Your task to perform on an android device: uninstall "Google Photos" Image 0: 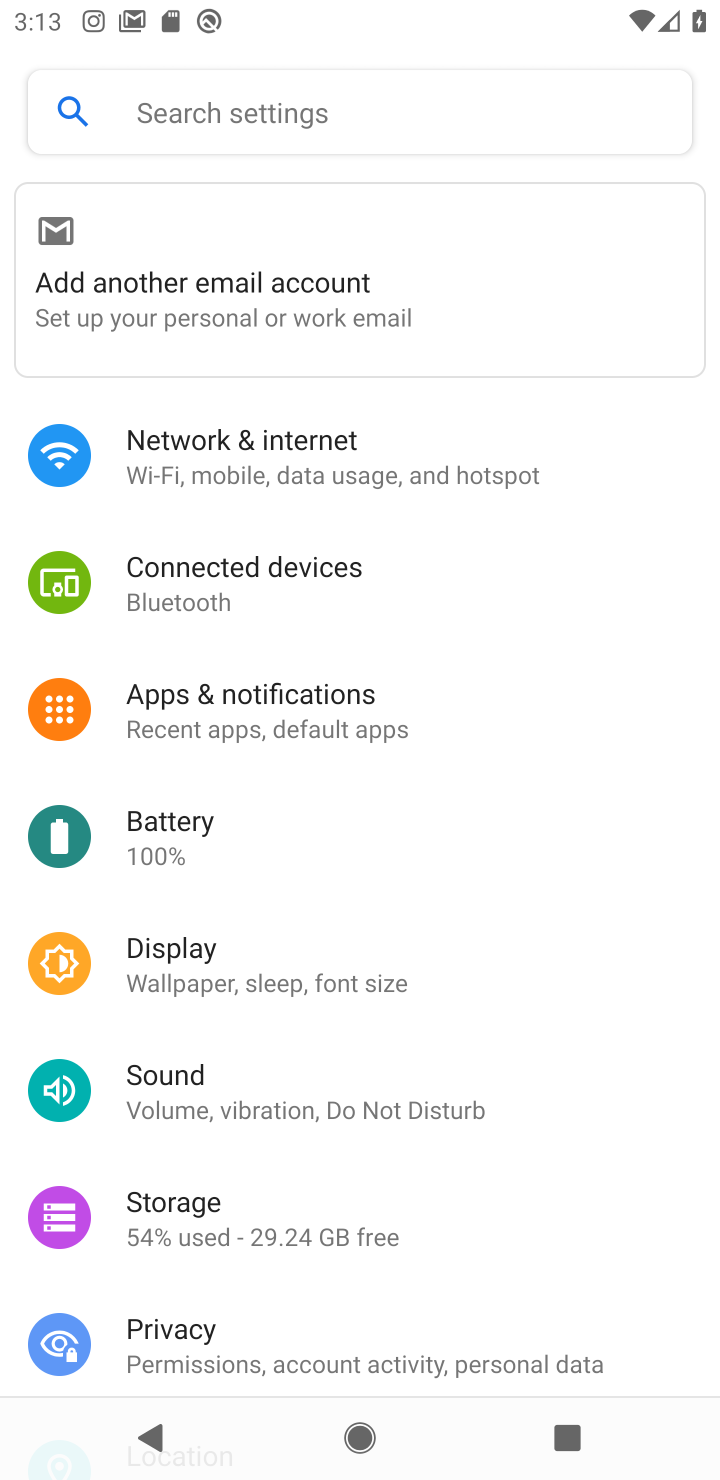
Step 0: press home button
Your task to perform on an android device: uninstall "Google Photos" Image 1: 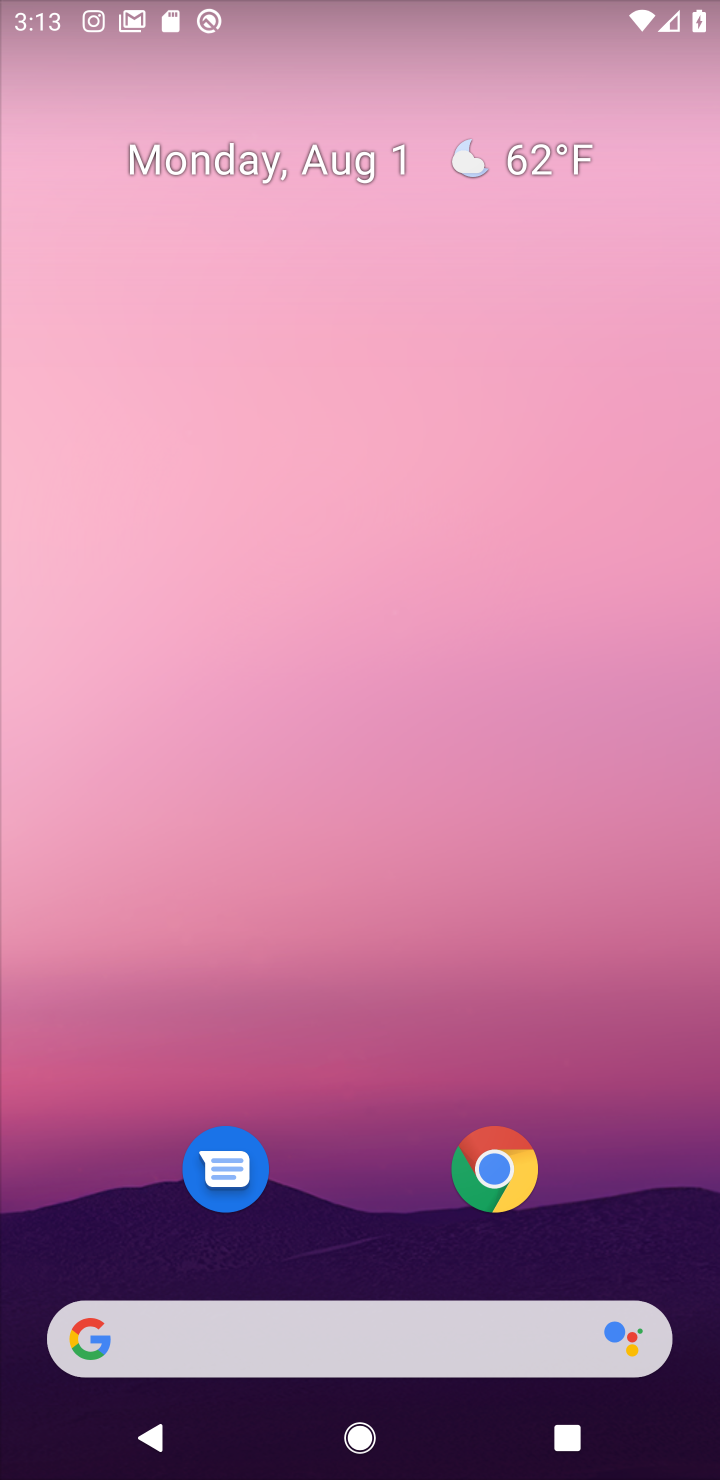
Step 1: drag from (319, 896) to (347, 9)
Your task to perform on an android device: uninstall "Google Photos" Image 2: 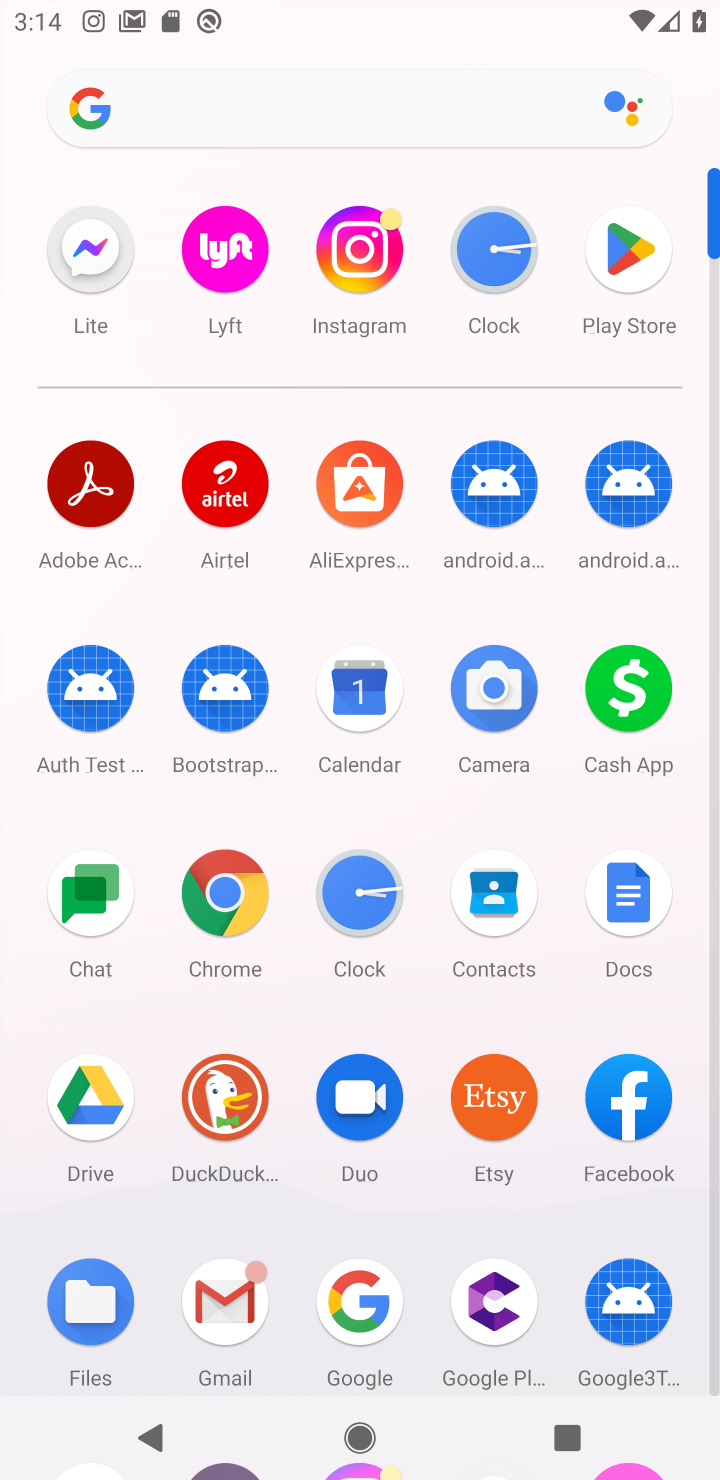
Step 2: click (647, 260)
Your task to perform on an android device: uninstall "Google Photos" Image 3: 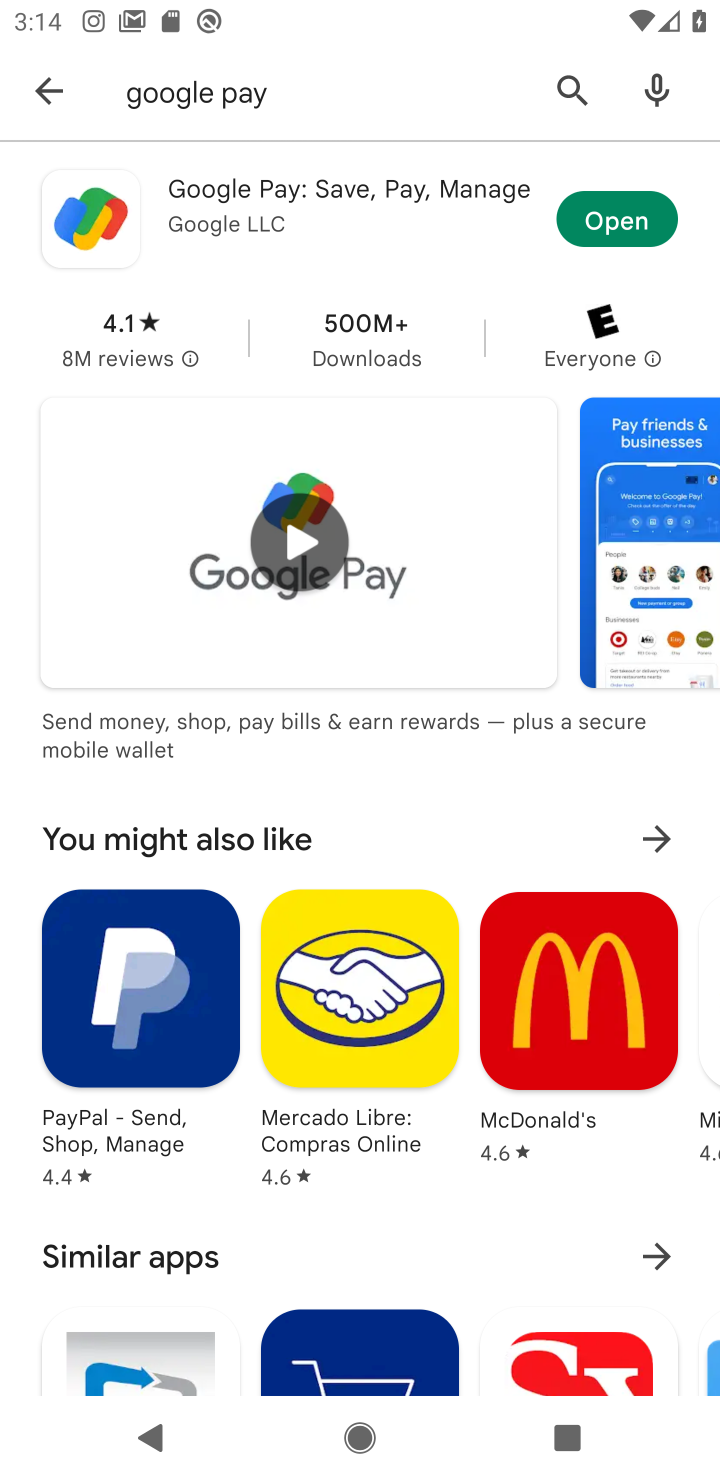
Step 3: click (72, 92)
Your task to perform on an android device: uninstall "Google Photos" Image 4: 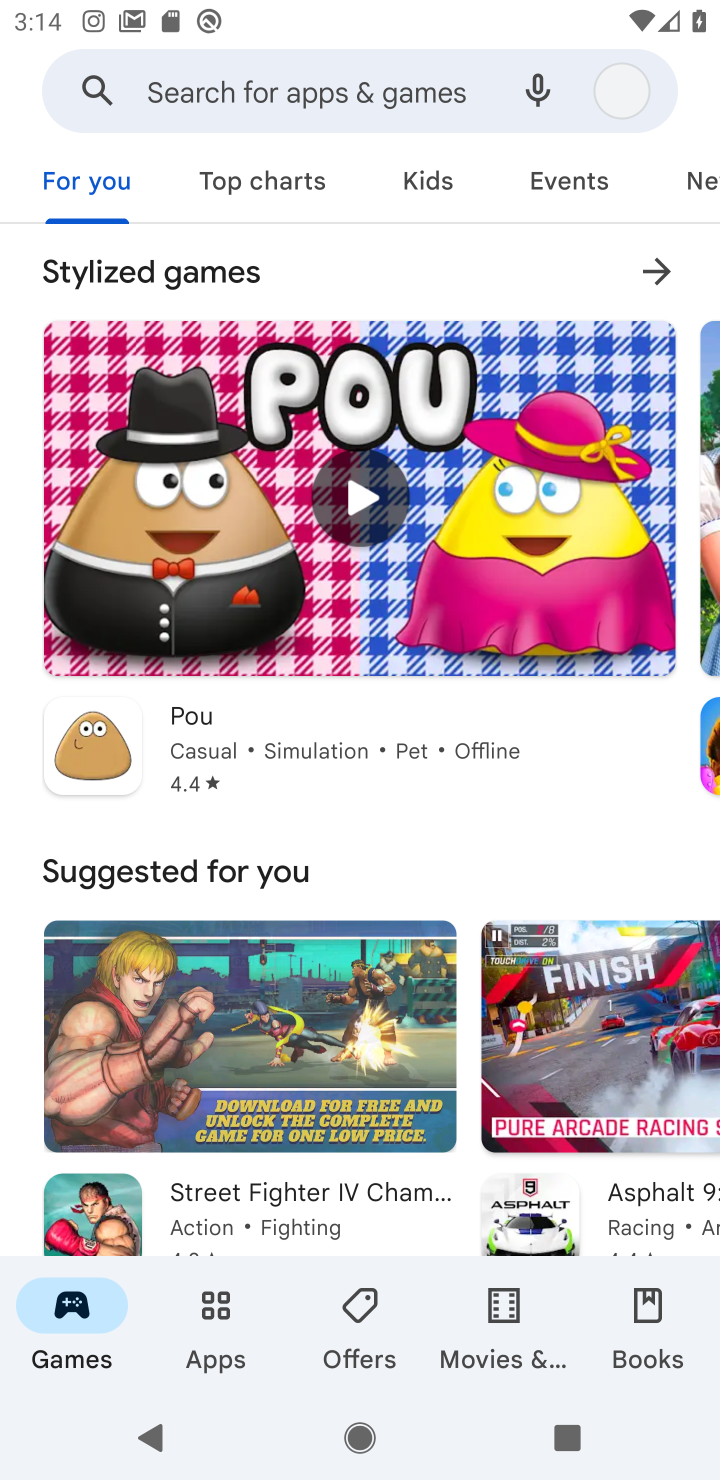
Step 4: click (296, 78)
Your task to perform on an android device: uninstall "Google Photos" Image 5: 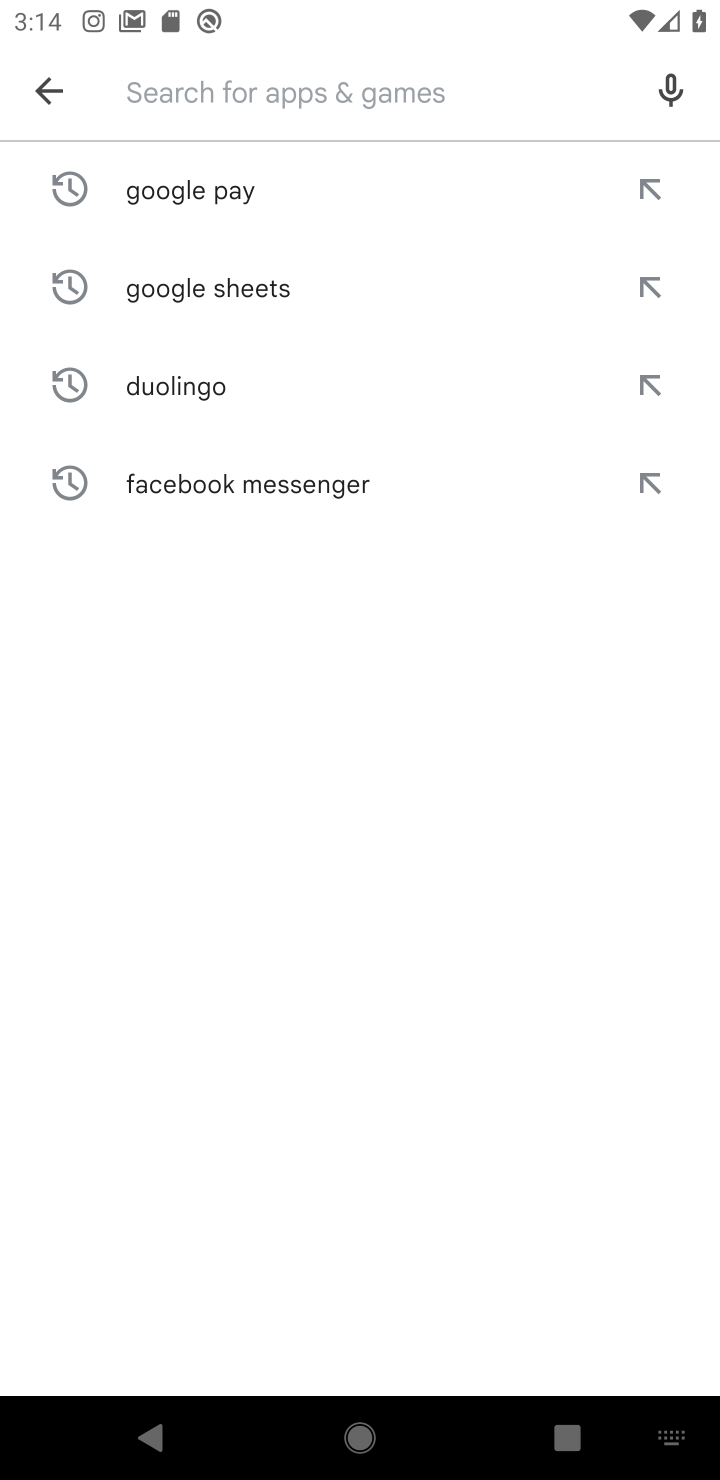
Step 5: type "Google Photos"
Your task to perform on an android device: uninstall "Google Photos" Image 6: 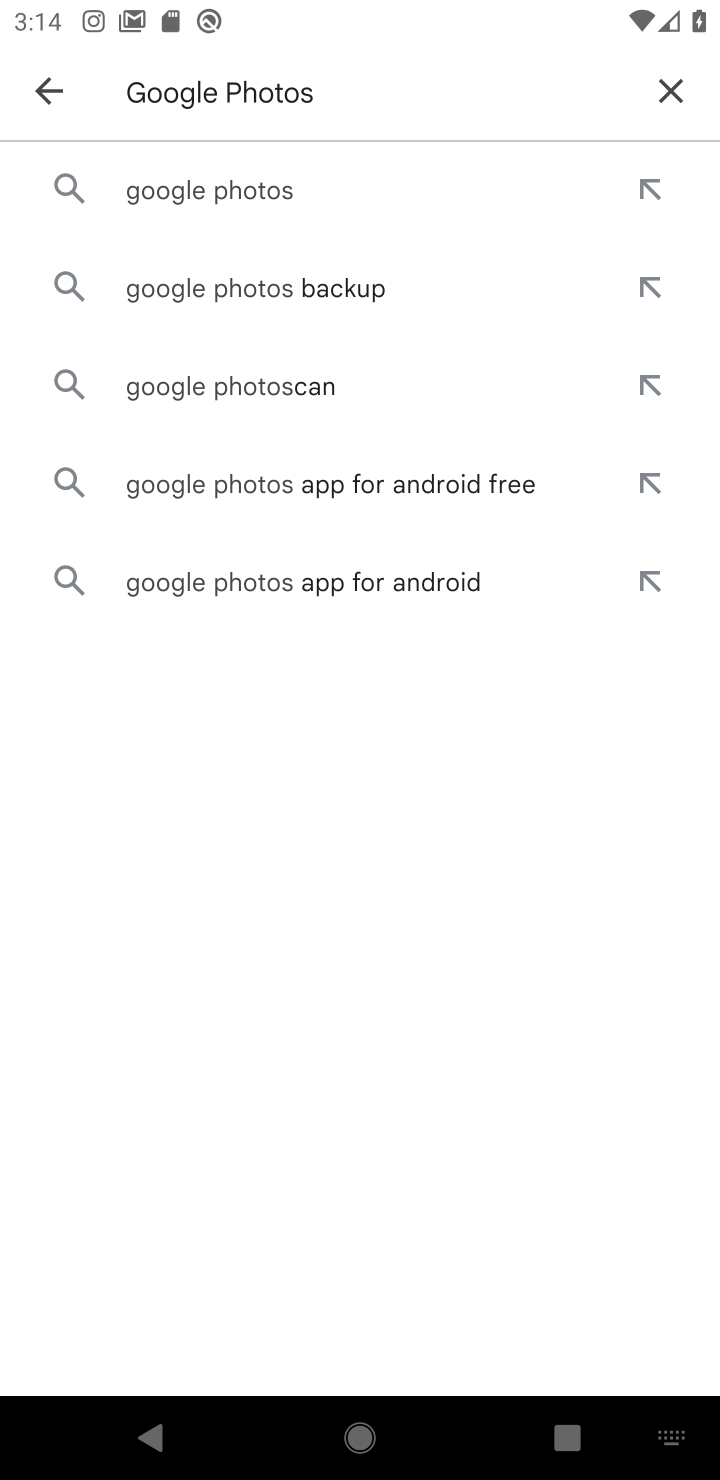
Step 6: click (280, 184)
Your task to perform on an android device: uninstall "Google Photos" Image 7: 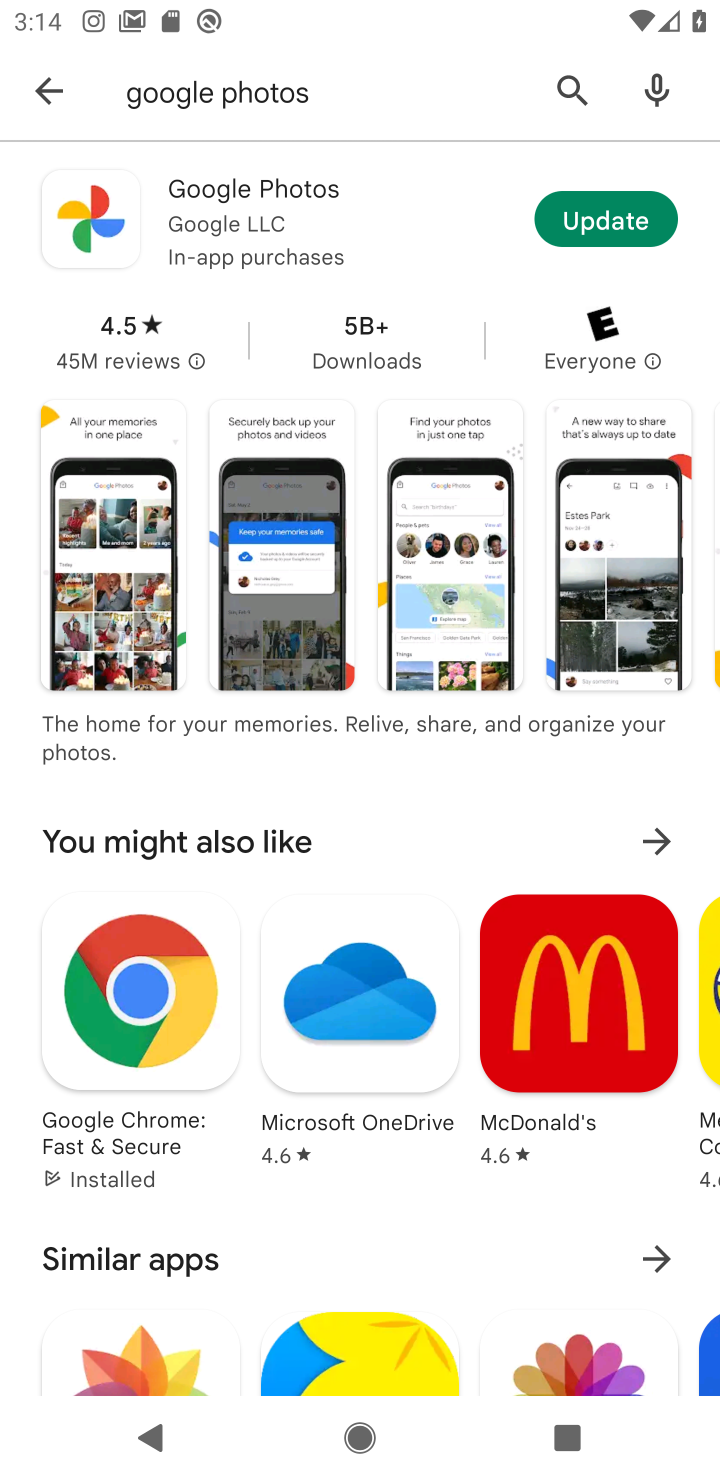
Step 7: click (590, 221)
Your task to perform on an android device: uninstall "Google Photos" Image 8: 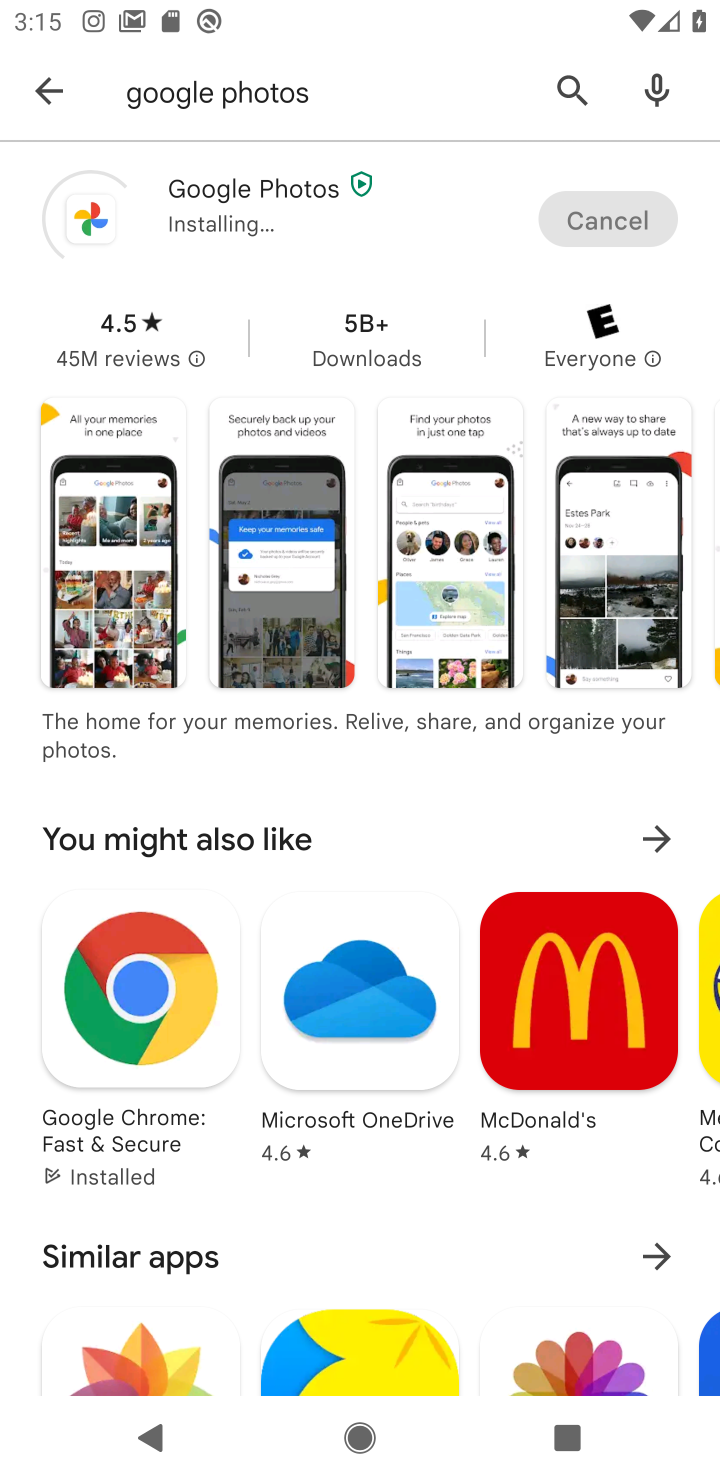
Step 8: click (228, 541)
Your task to perform on an android device: uninstall "Google Photos" Image 9: 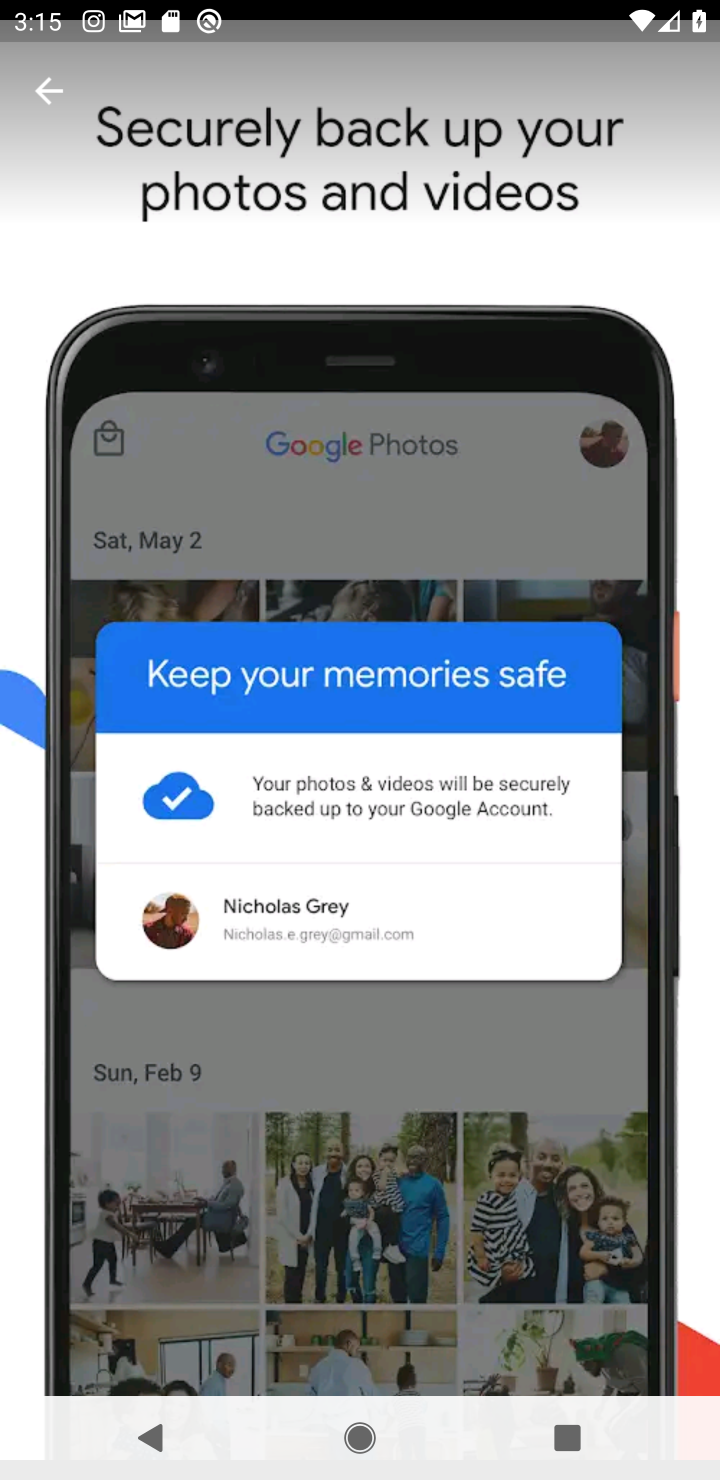
Step 9: click (69, 89)
Your task to perform on an android device: uninstall "Google Photos" Image 10: 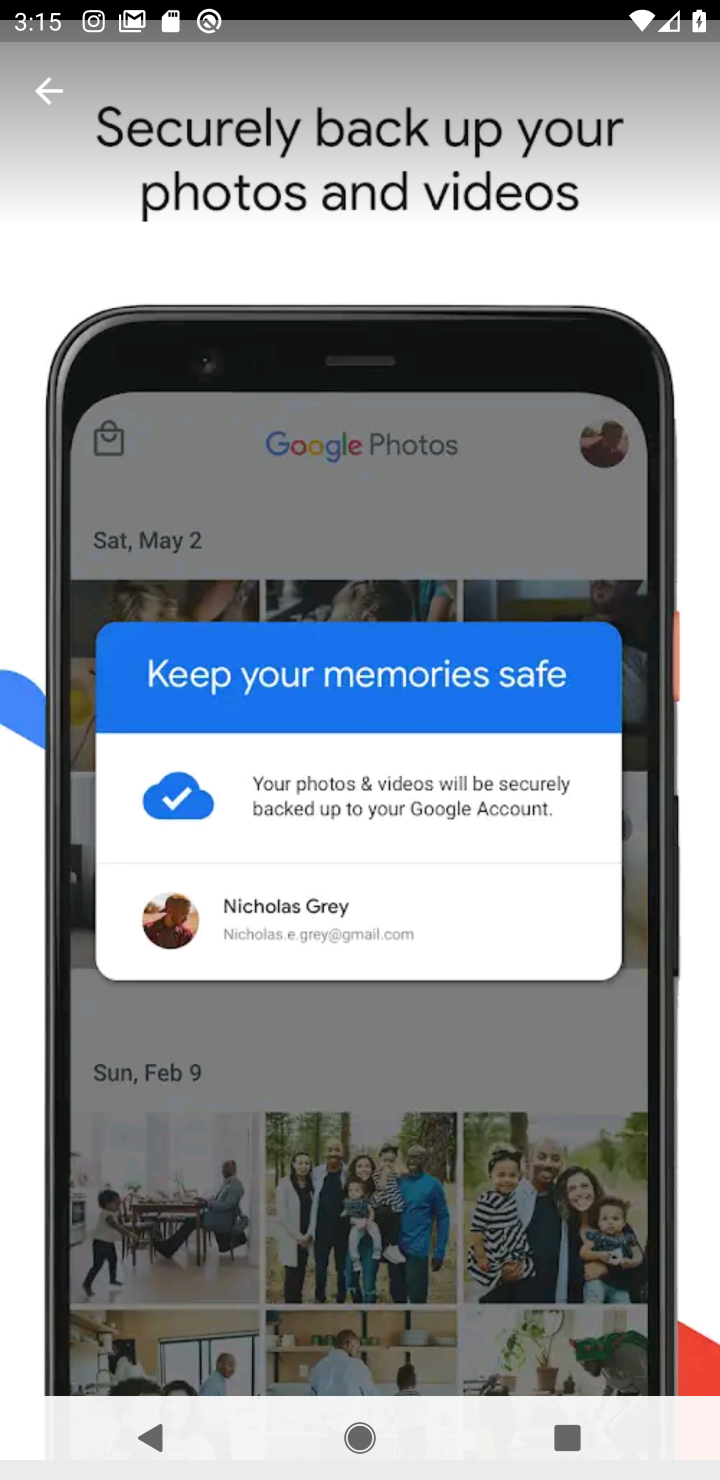
Step 10: click (37, 89)
Your task to perform on an android device: uninstall "Google Photos" Image 11: 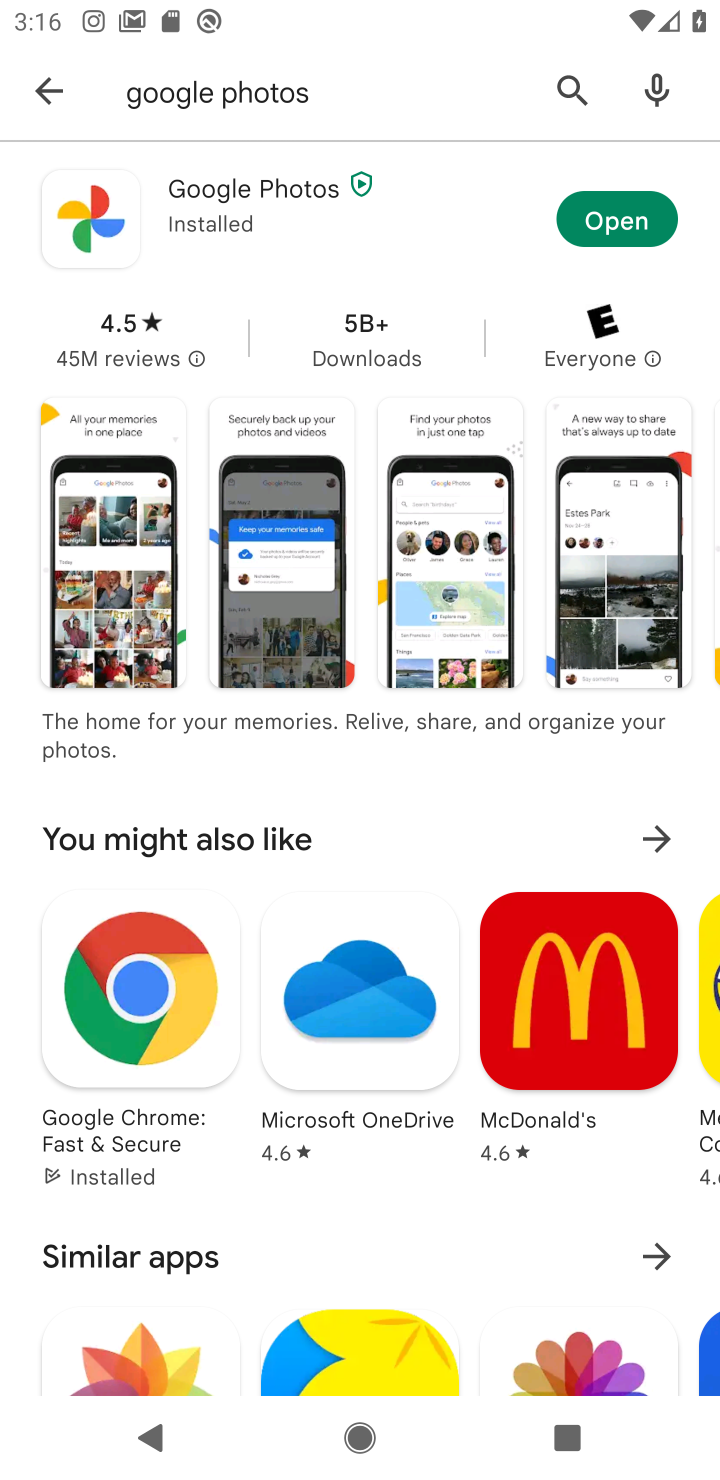
Step 11: click (224, 211)
Your task to perform on an android device: uninstall "Google Photos" Image 12: 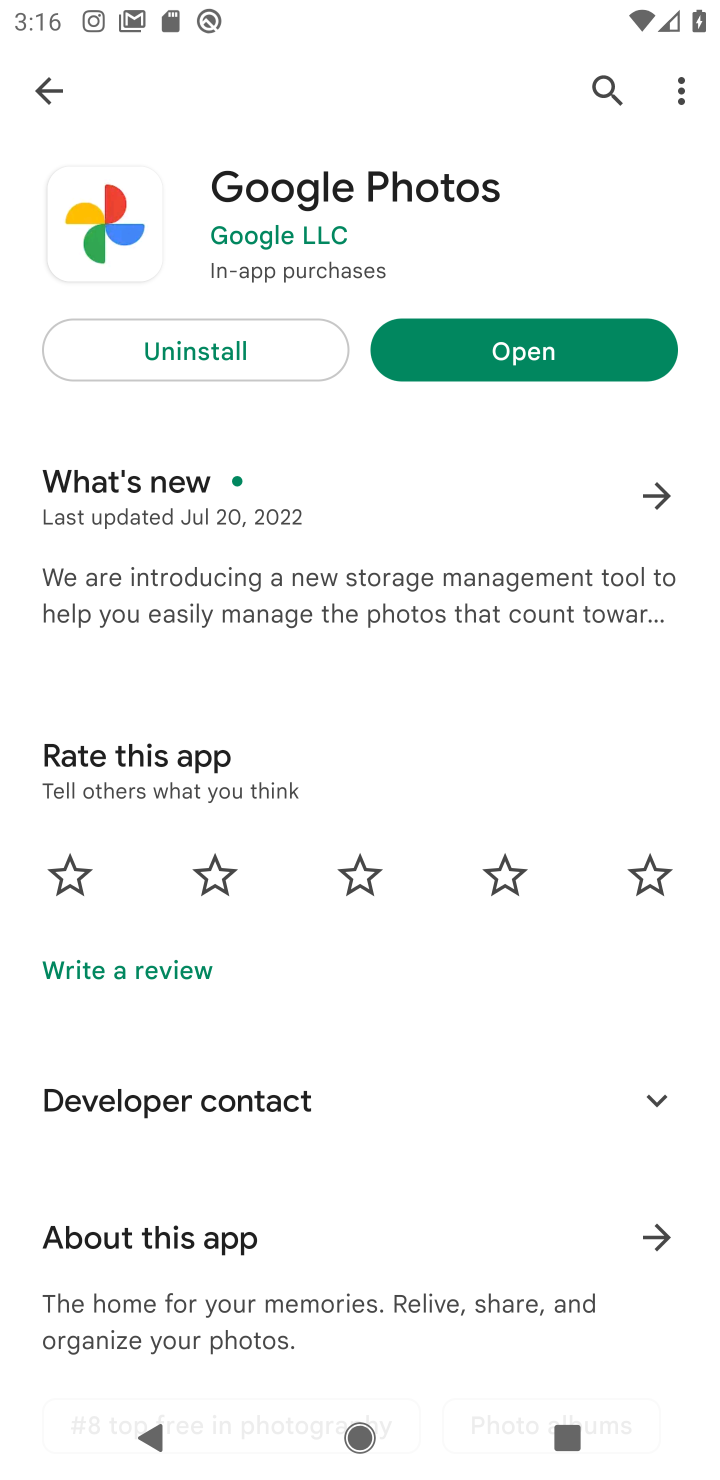
Step 12: click (175, 338)
Your task to perform on an android device: uninstall "Google Photos" Image 13: 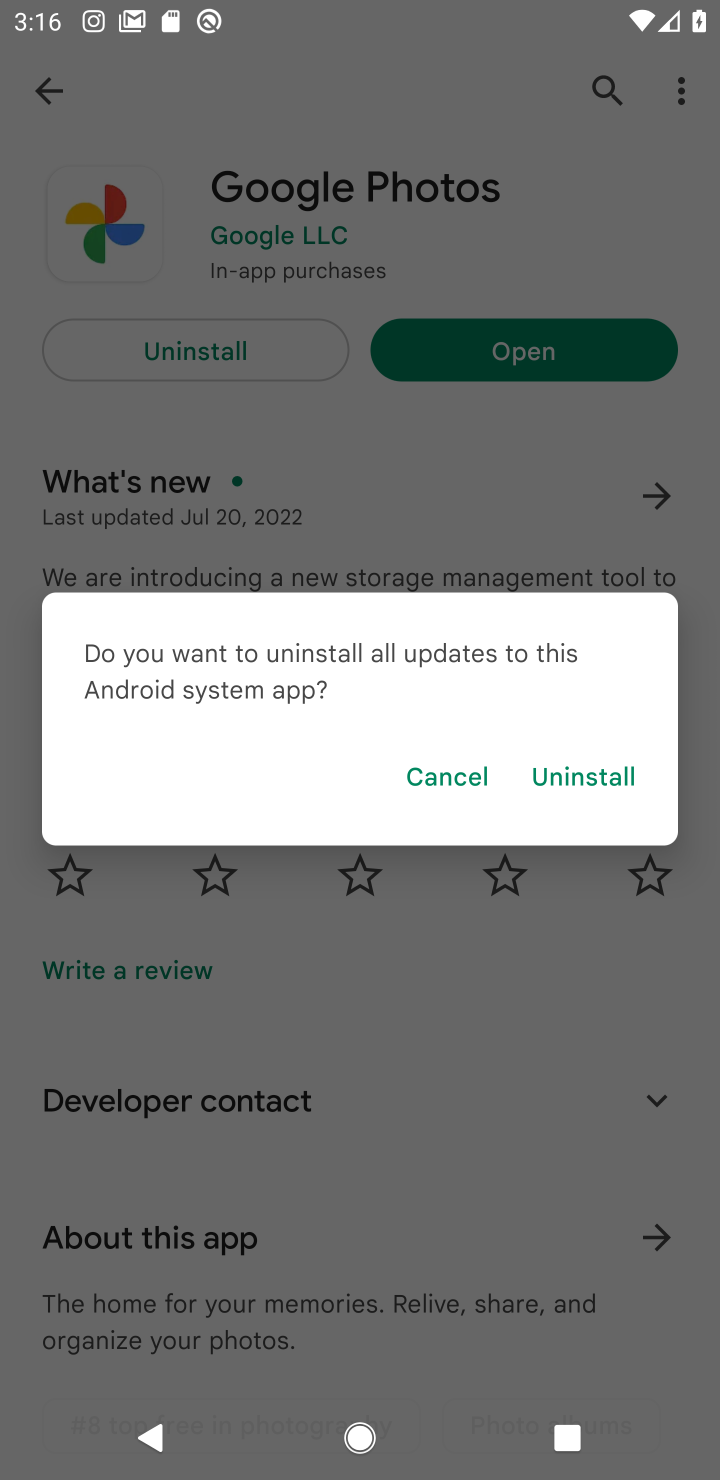
Step 13: click (582, 768)
Your task to perform on an android device: uninstall "Google Photos" Image 14: 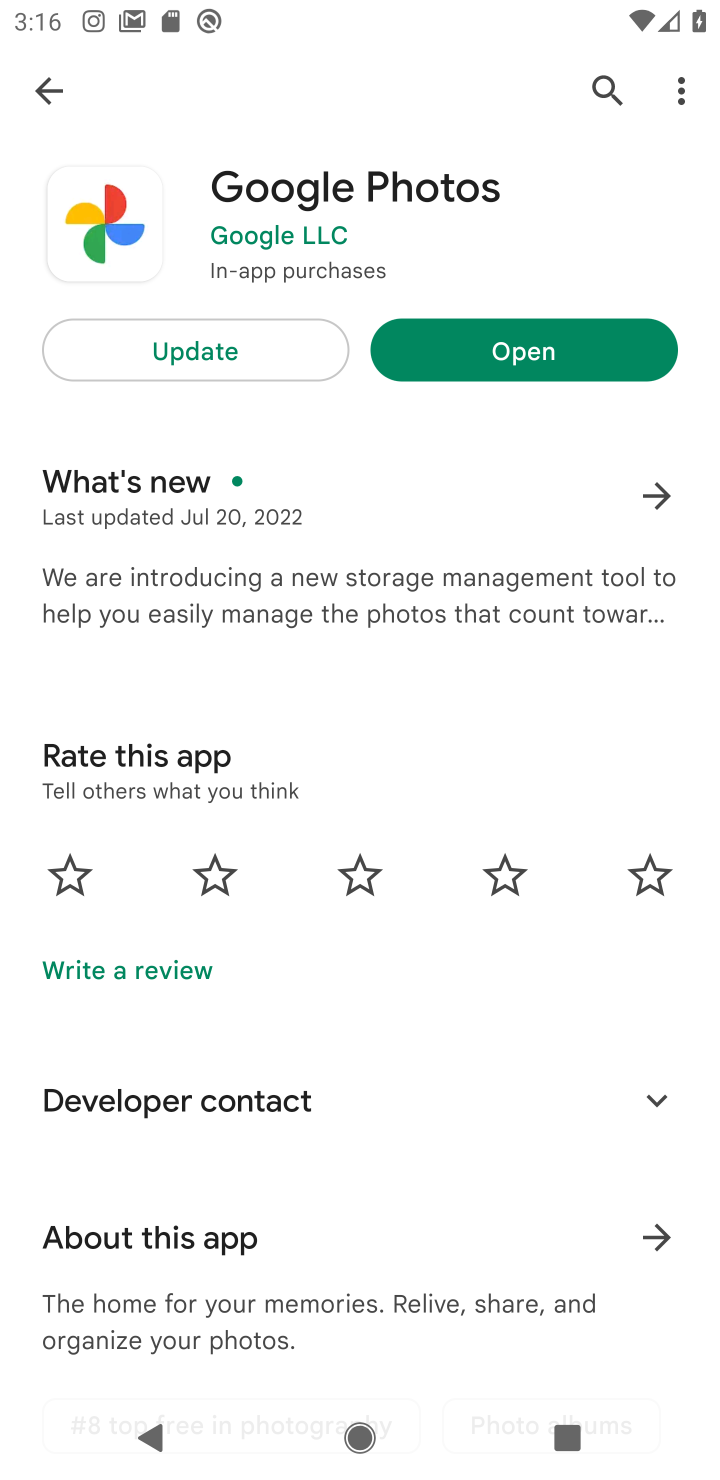
Step 14: task complete